Your task to perform on an android device: allow cookies in the chrome app Image 0: 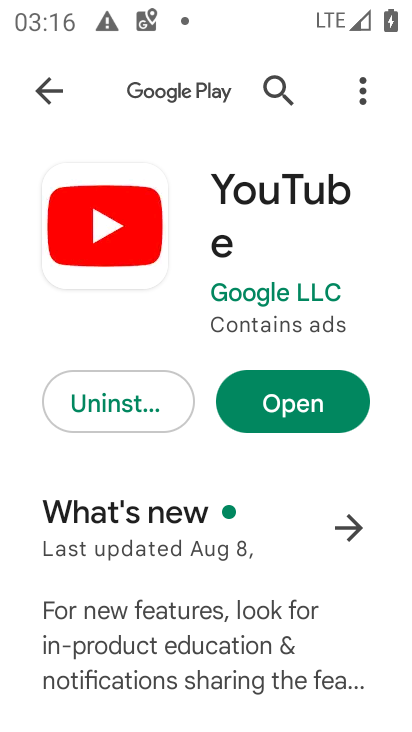
Step 0: press home button
Your task to perform on an android device: allow cookies in the chrome app Image 1: 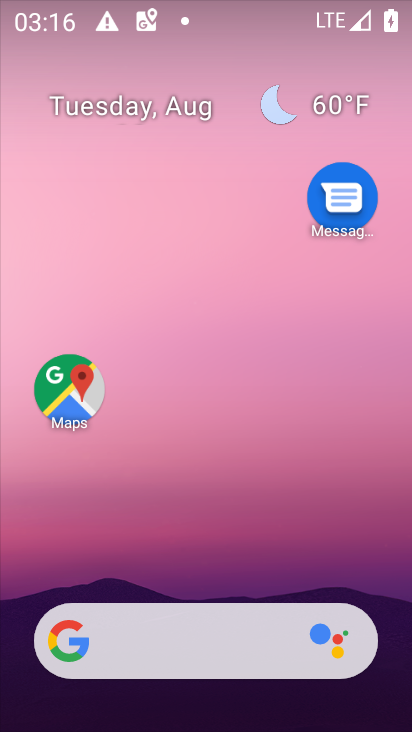
Step 1: drag from (244, 577) to (234, 47)
Your task to perform on an android device: allow cookies in the chrome app Image 2: 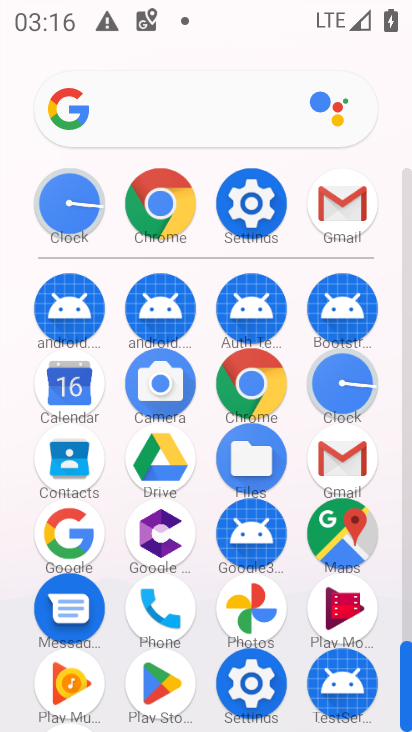
Step 2: click (174, 196)
Your task to perform on an android device: allow cookies in the chrome app Image 3: 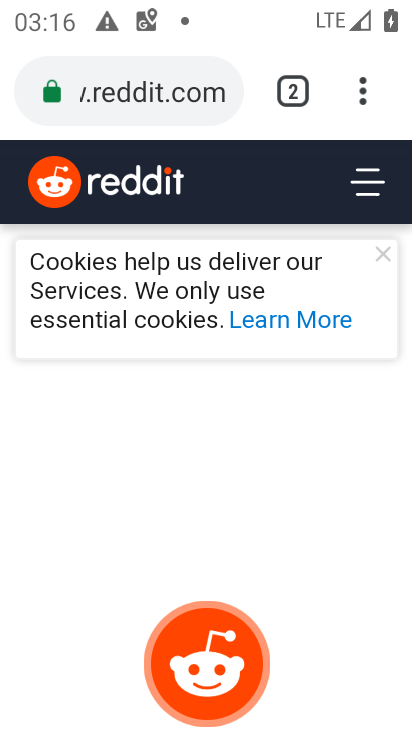
Step 3: click (349, 95)
Your task to perform on an android device: allow cookies in the chrome app Image 4: 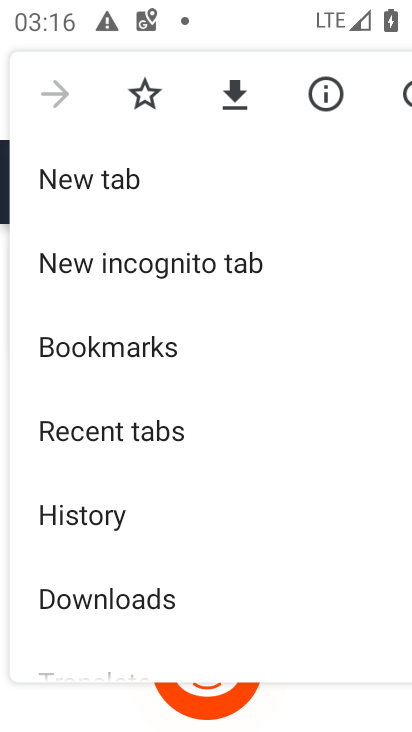
Step 4: drag from (74, 622) to (138, 286)
Your task to perform on an android device: allow cookies in the chrome app Image 5: 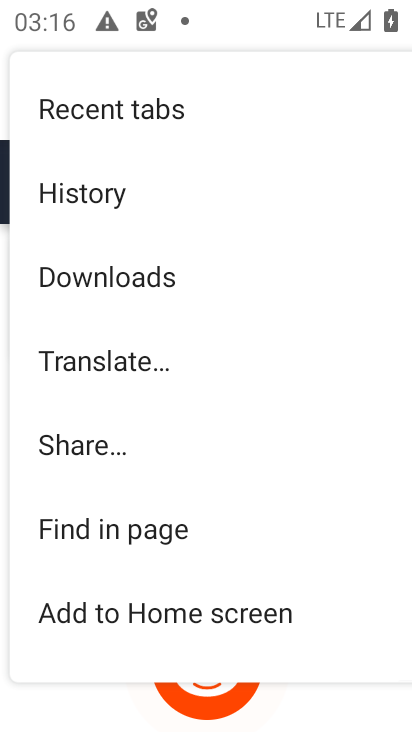
Step 5: drag from (150, 593) to (150, 313)
Your task to perform on an android device: allow cookies in the chrome app Image 6: 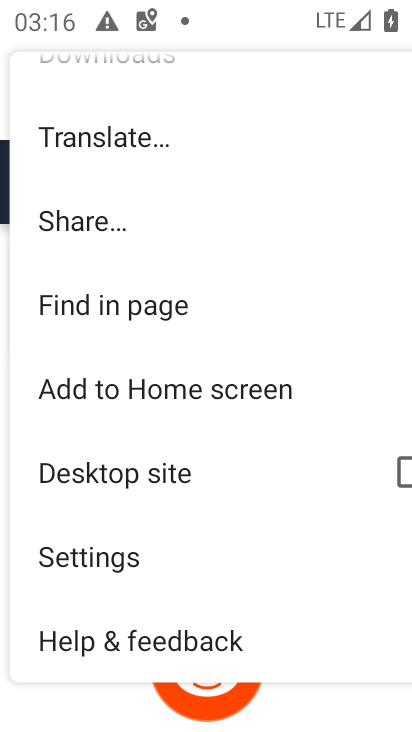
Step 6: click (150, 547)
Your task to perform on an android device: allow cookies in the chrome app Image 7: 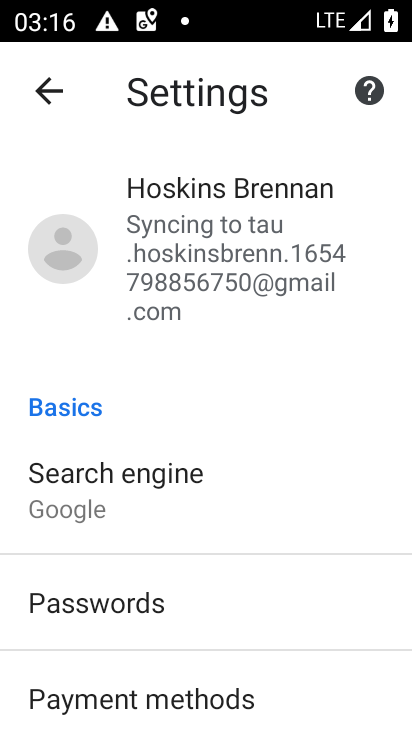
Step 7: drag from (186, 617) to (204, 296)
Your task to perform on an android device: allow cookies in the chrome app Image 8: 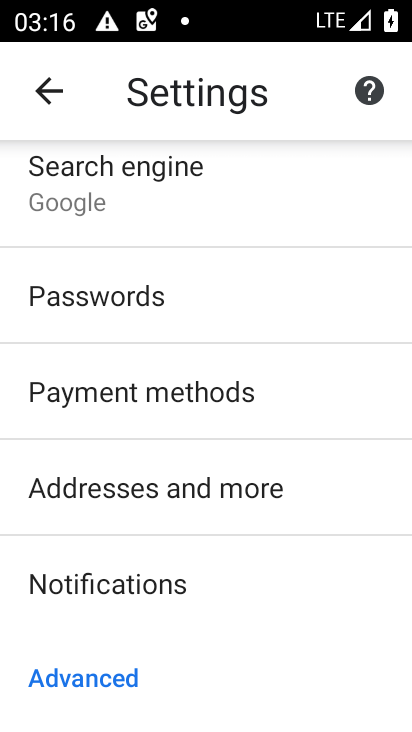
Step 8: drag from (234, 611) to (218, 289)
Your task to perform on an android device: allow cookies in the chrome app Image 9: 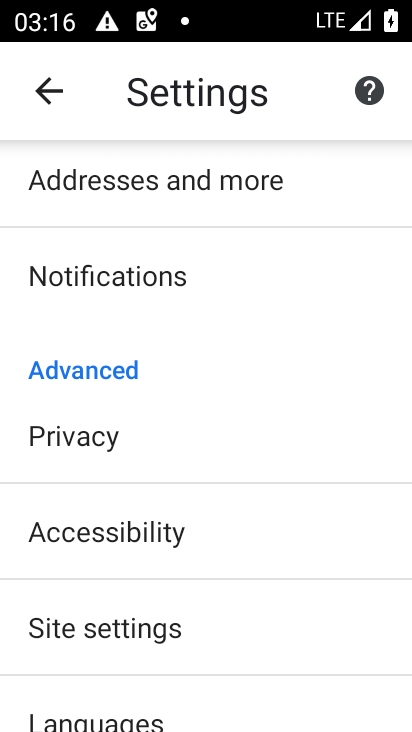
Step 9: click (211, 619)
Your task to perform on an android device: allow cookies in the chrome app Image 10: 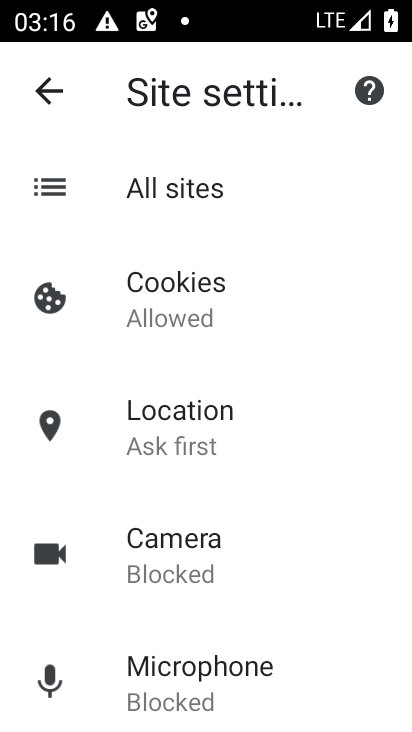
Step 10: drag from (216, 628) to (223, 526)
Your task to perform on an android device: allow cookies in the chrome app Image 11: 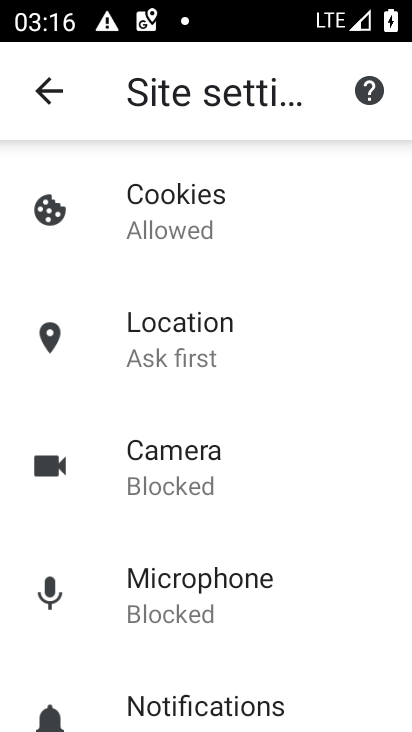
Step 11: click (187, 215)
Your task to perform on an android device: allow cookies in the chrome app Image 12: 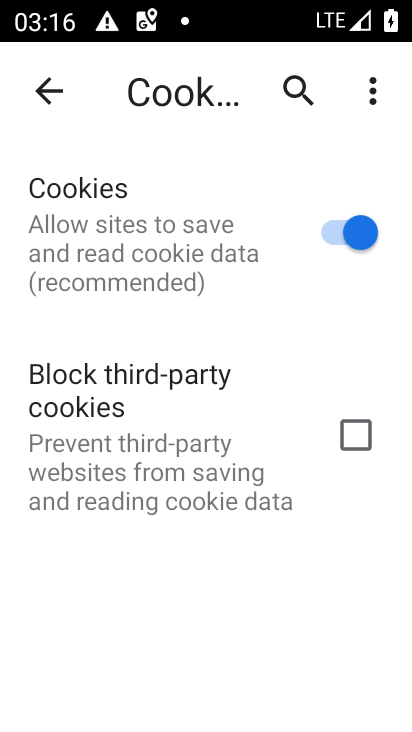
Step 12: click (317, 243)
Your task to perform on an android device: allow cookies in the chrome app Image 13: 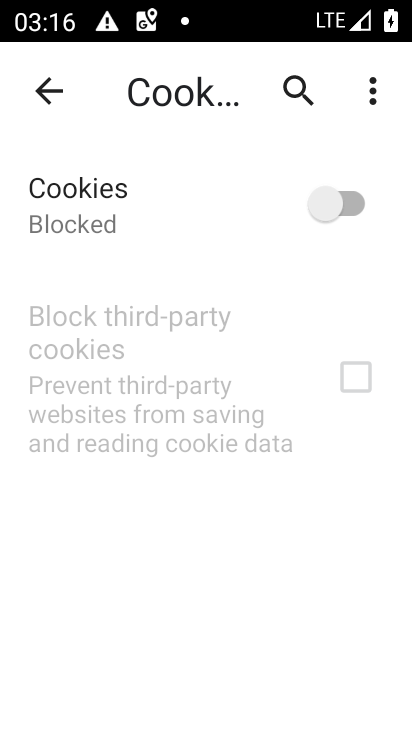
Step 13: task complete